Your task to perform on an android device: turn on sleep mode Image 0: 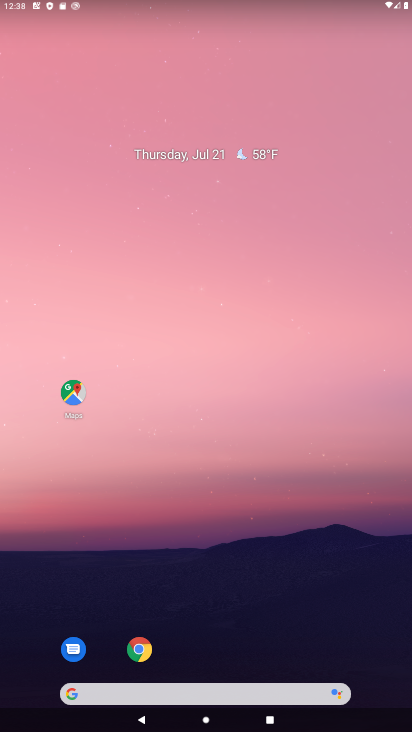
Step 0: drag from (366, 635) to (325, 24)
Your task to perform on an android device: turn on sleep mode Image 1: 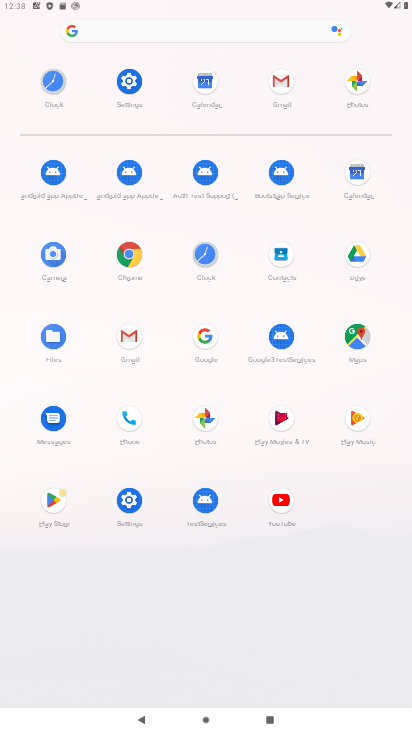
Step 1: click (129, 502)
Your task to perform on an android device: turn on sleep mode Image 2: 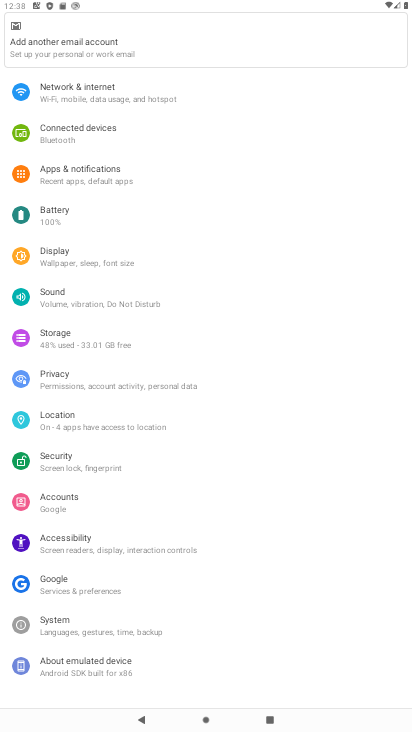
Step 2: click (65, 251)
Your task to perform on an android device: turn on sleep mode Image 3: 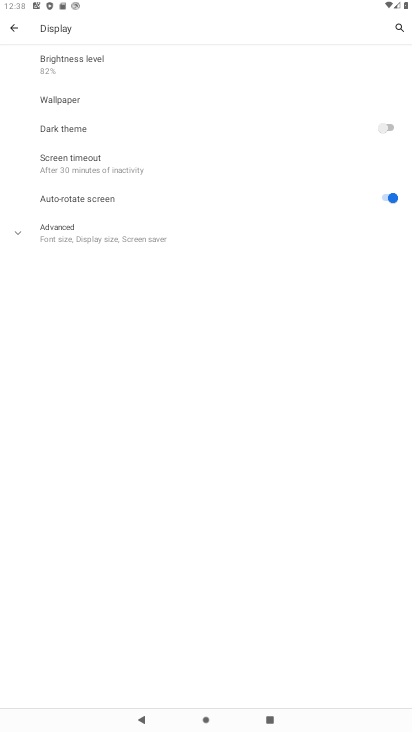
Step 3: click (34, 238)
Your task to perform on an android device: turn on sleep mode Image 4: 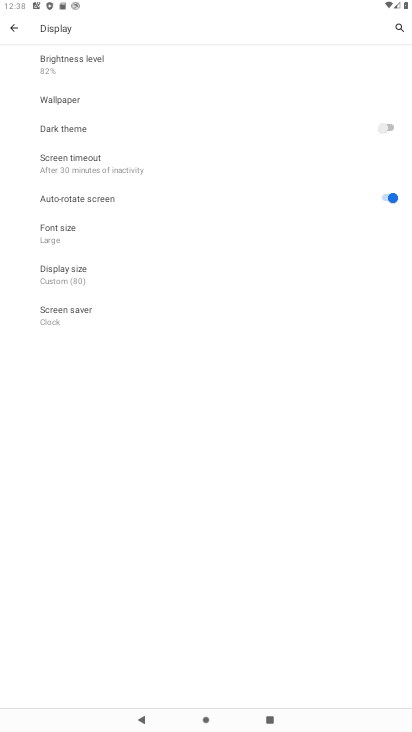
Step 4: task complete